Your task to perform on an android device: toggle wifi Image 0: 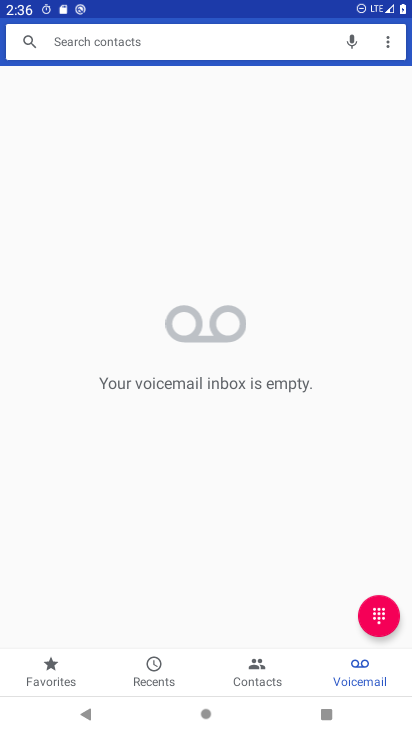
Step 0: press home button
Your task to perform on an android device: toggle wifi Image 1: 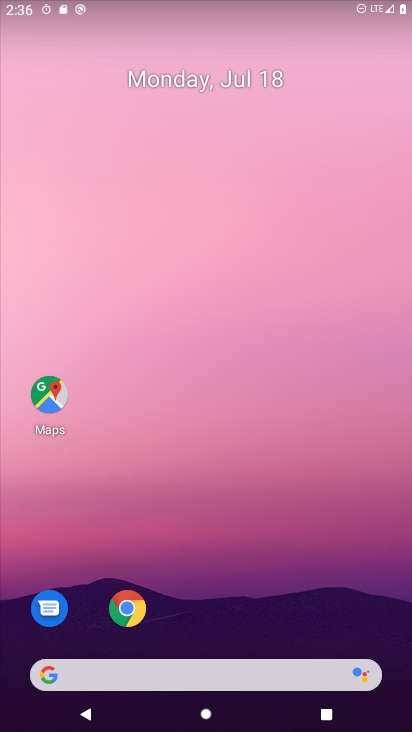
Step 1: drag from (248, 724) to (227, 71)
Your task to perform on an android device: toggle wifi Image 2: 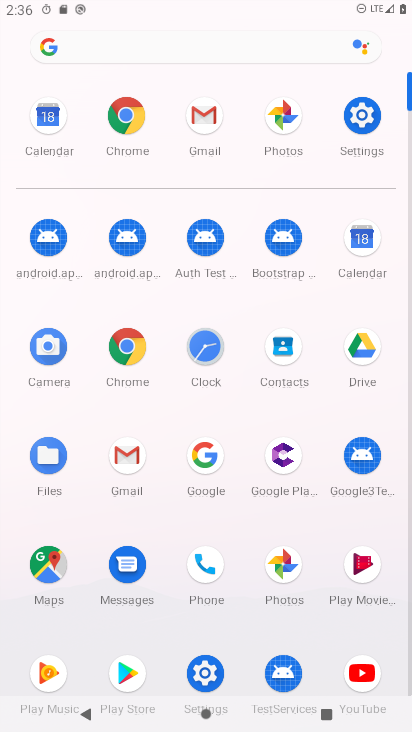
Step 2: click (360, 120)
Your task to perform on an android device: toggle wifi Image 3: 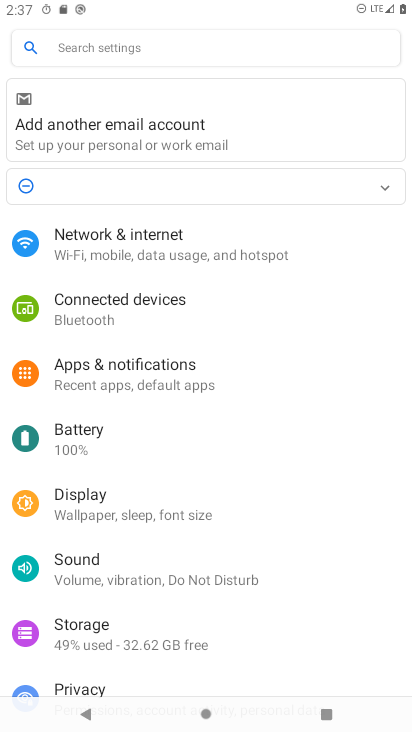
Step 3: click (128, 236)
Your task to perform on an android device: toggle wifi Image 4: 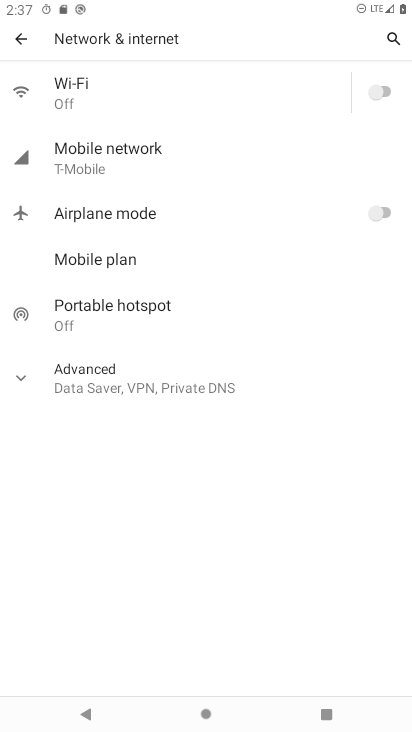
Step 4: click (385, 91)
Your task to perform on an android device: toggle wifi Image 5: 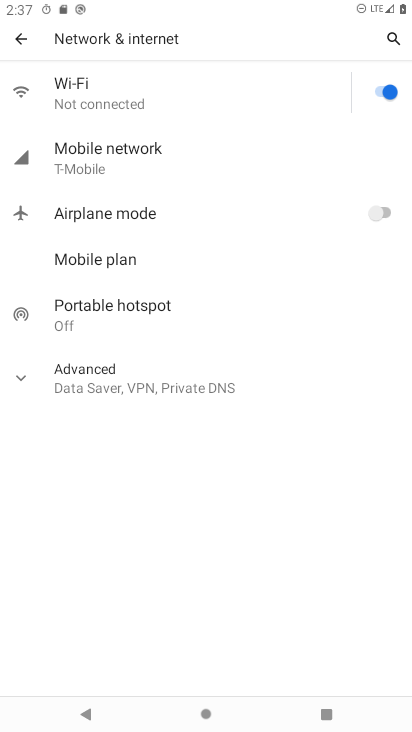
Step 5: task complete